Your task to perform on an android device: Show me popular videos on Youtube Image 0: 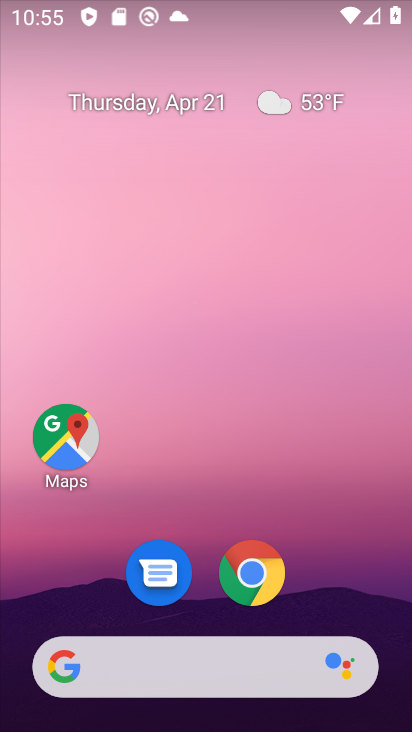
Step 0: drag from (364, 543) to (398, 655)
Your task to perform on an android device: Show me popular videos on Youtube Image 1: 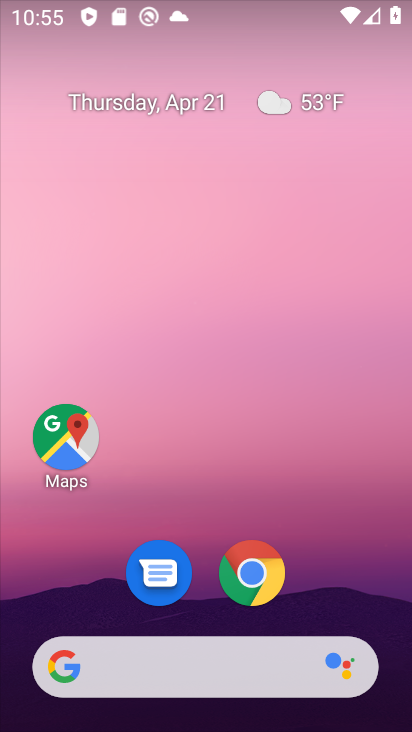
Step 1: drag from (394, 386) to (406, 85)
Your task to perform on an android device: Show me popular videos on Youtube Image 2: 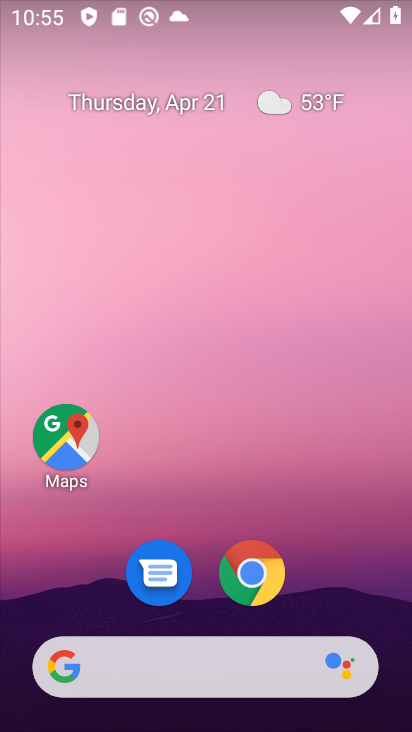
Step 2: drag from (326, 594) to (349, 81)
Your task to perform on an android device: Show me popular videos on Youtube Image 3: 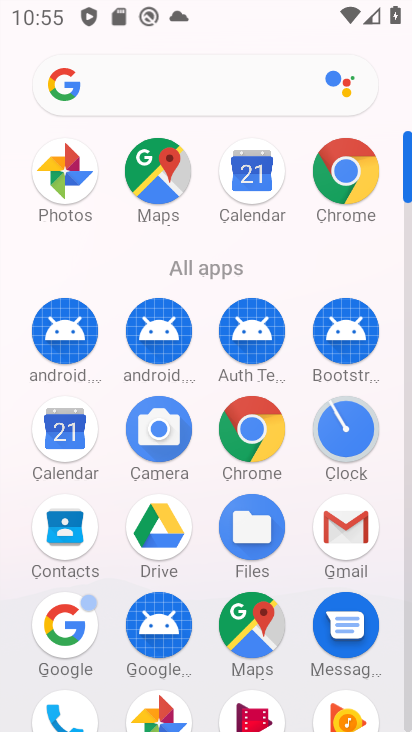
Step 3: drag from (306, 291) to (286, 19)
Your task to perform on an android device: Show me popular videos on Youtube Image 4: 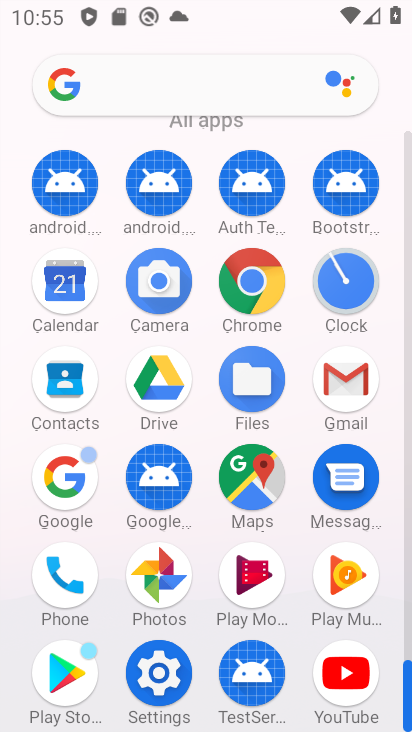
Step 4: click (345, 670)
Your task to perform on an android device: Show me popular videos on Youtube Image 5: 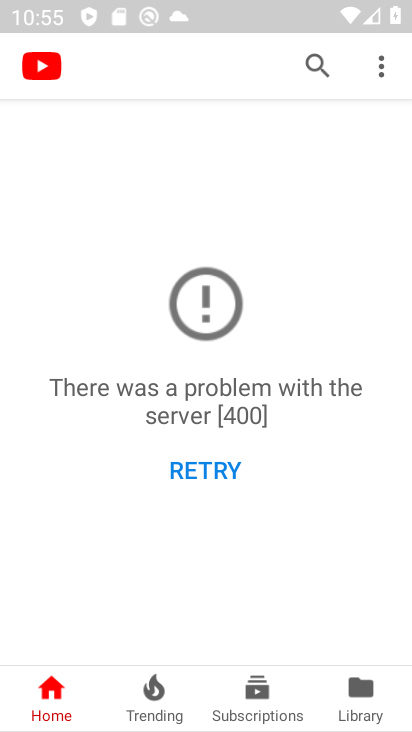
Step 5: task complete